Your task to perform on an android device: turn on the 12-hour format for clock Image 0: 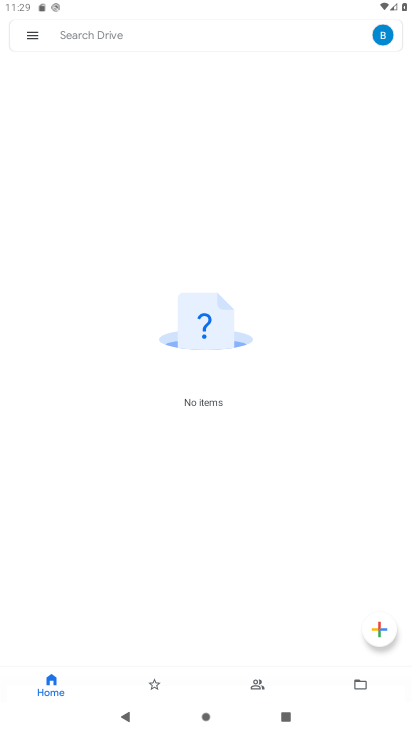
Step 0: press home button
Your task to perform on an android device: turn on the 12-hour format for clock Image 1: 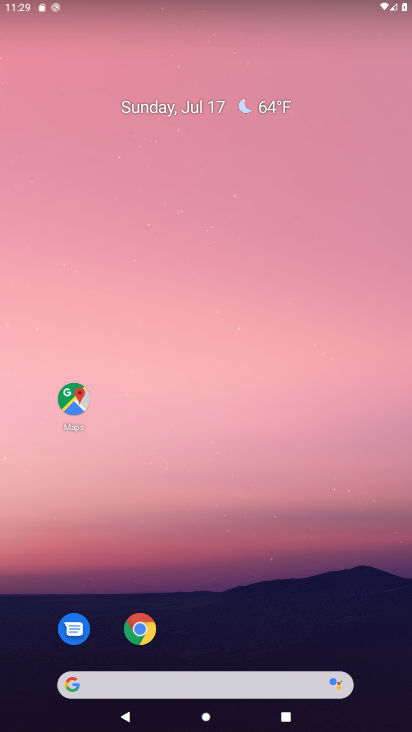
Step 1: drag from (296, 667) to (319, 237)
Your task to perform on an android device: turn on the 12-hour format for clock Image 2: 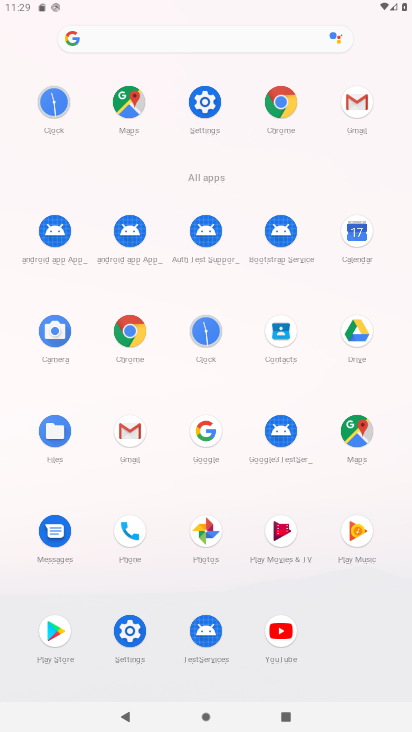
Step 2: click (213, 324)
Your task to perform on an android device: turn on the 12-hour format for clock Image 3: 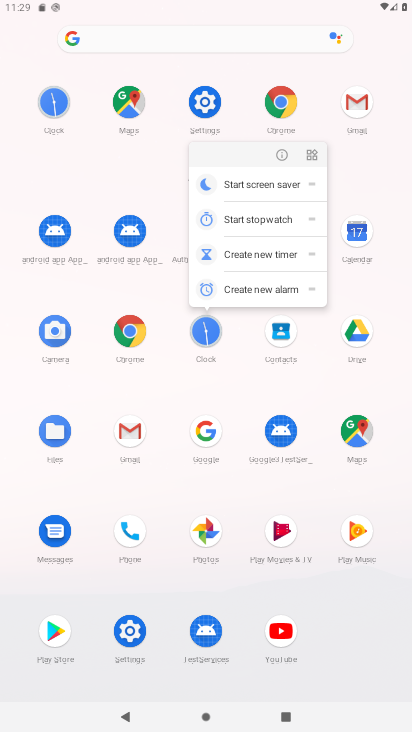
Step 3: click (213, 325)
Your task to perform on an android device: turn on the 12-hour format for clock Image 4: 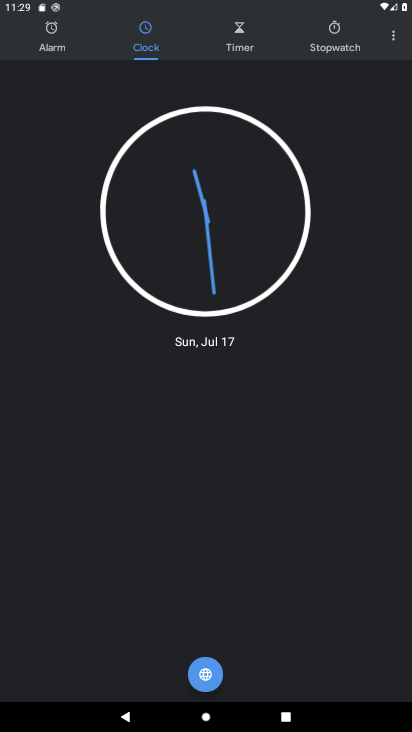
Step 4: click (391, 29)
Your task to perform on an android device: turn on the 12-hour format for clock Image 5: 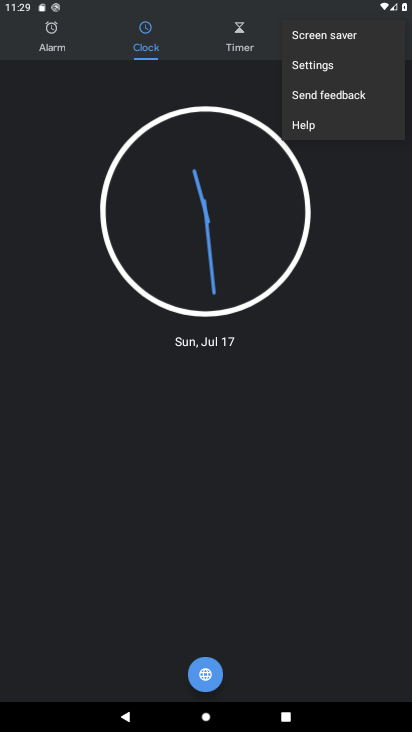
Step 5: click (317, 66)
Your task to perform on an android device: turn on the 12-hour format for clock Image 6: 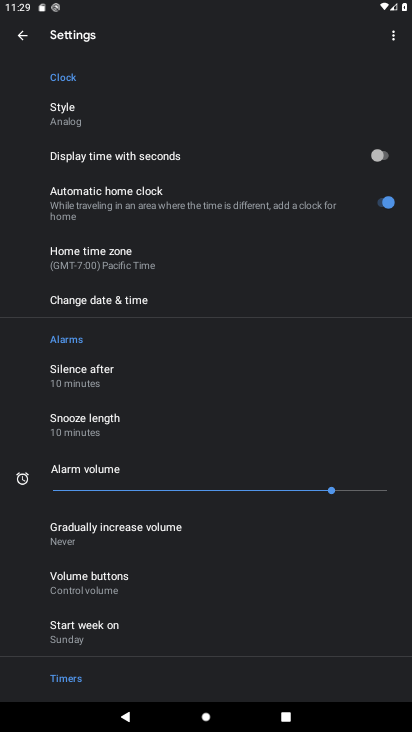
Step 6: click (146, 293)
Your task to perform on an android device: turn on the 12-hour format for clock Image 7: 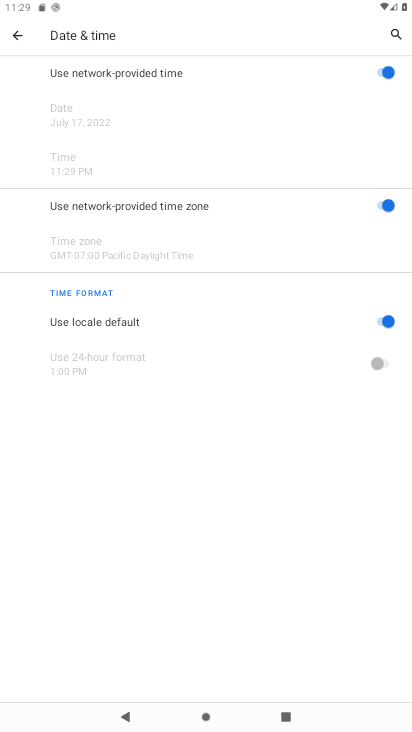
Step 7: click (378, 326)
Your task to perform on an android device: turn on the 12-hour format for clock Image 8: 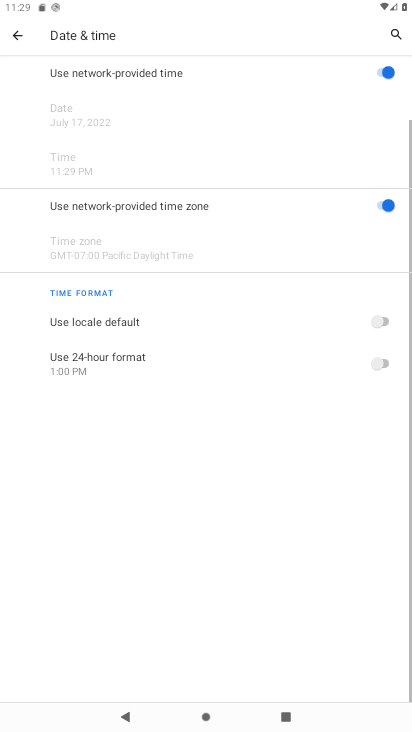
Step 8: click (382, 355)
Your task to perform on an android device: turn on the 12-hour format for clock Image 9: 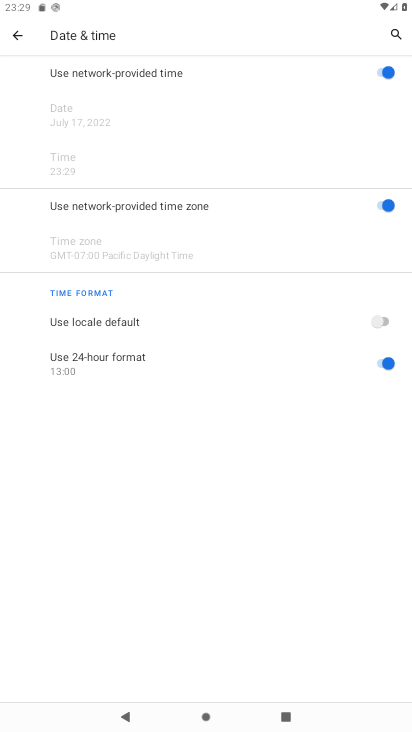
Step 9: task complete